Your task to perform on an android device: When is my next appointment? Image 0: 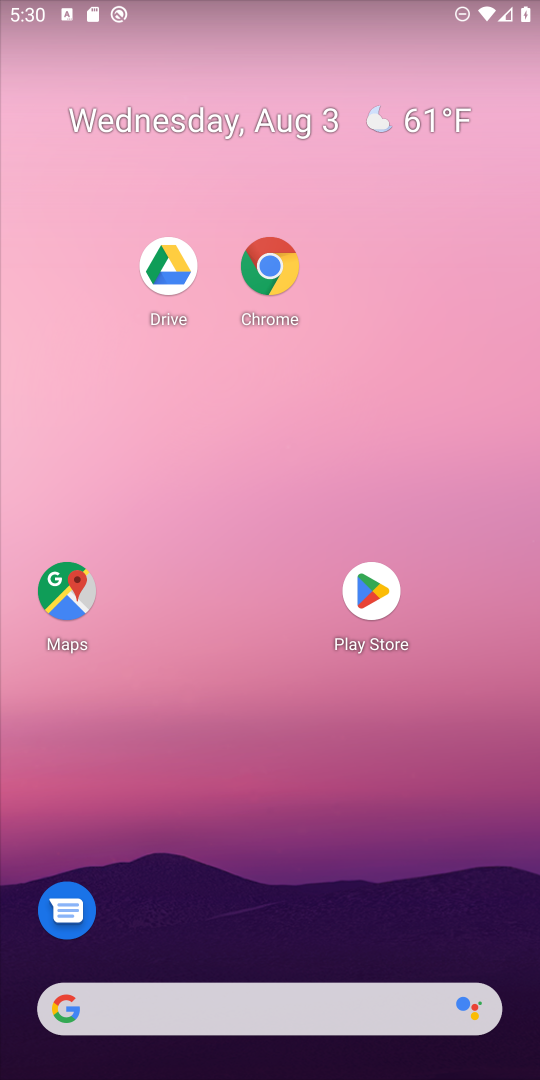
Step 0: drag from (388, 992) to (486, 3)
Your task to perform on an android device: When is my next appointment? Image 1: 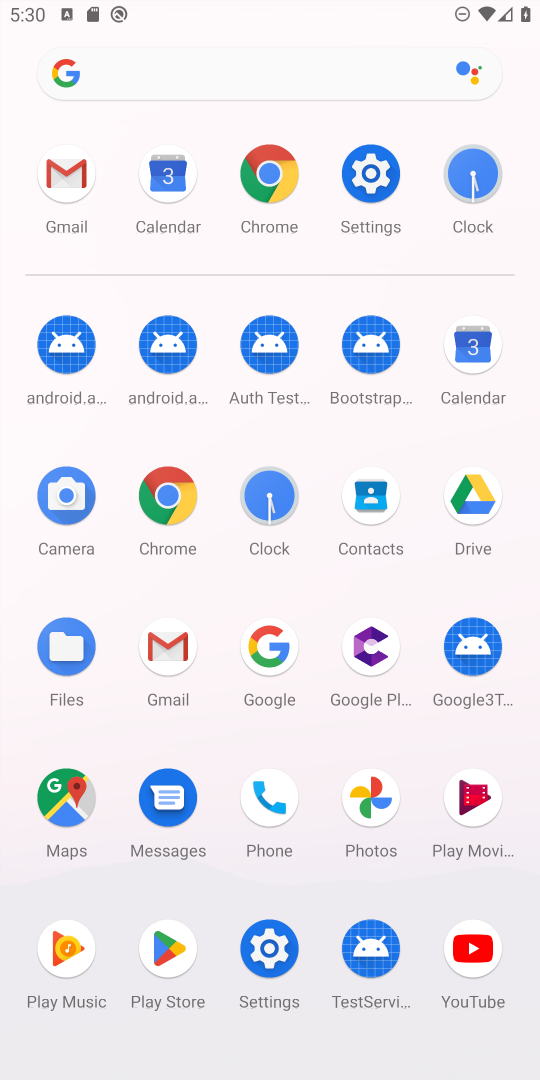
Step 1: click (479, 341)
Your task to perform on an android device: When is my next appointment? Image 2: 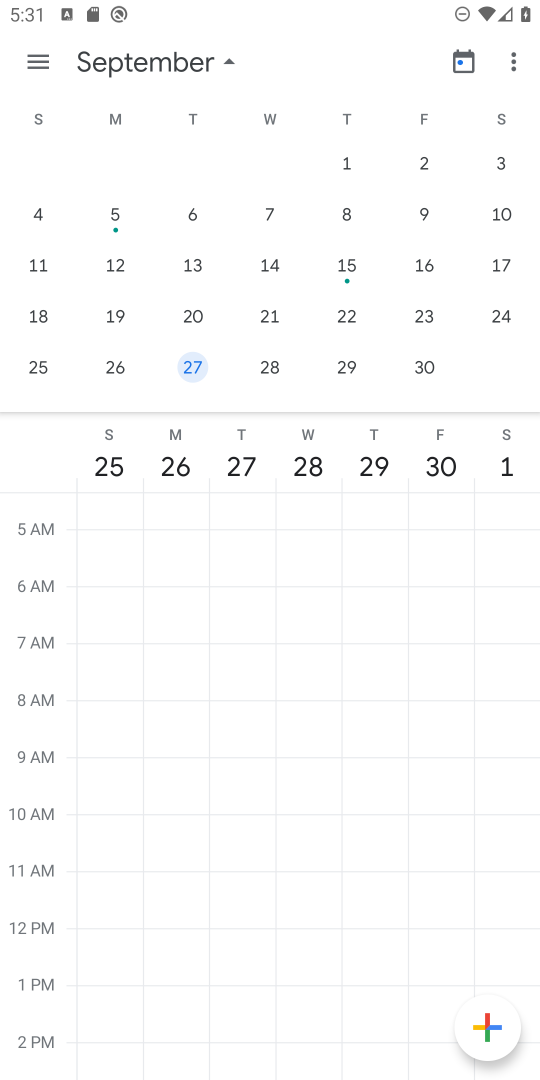
Step 2: drag from (146, 263) to (536, 214)
Your task to perform on an android device: When is my next appointment? Image 3: 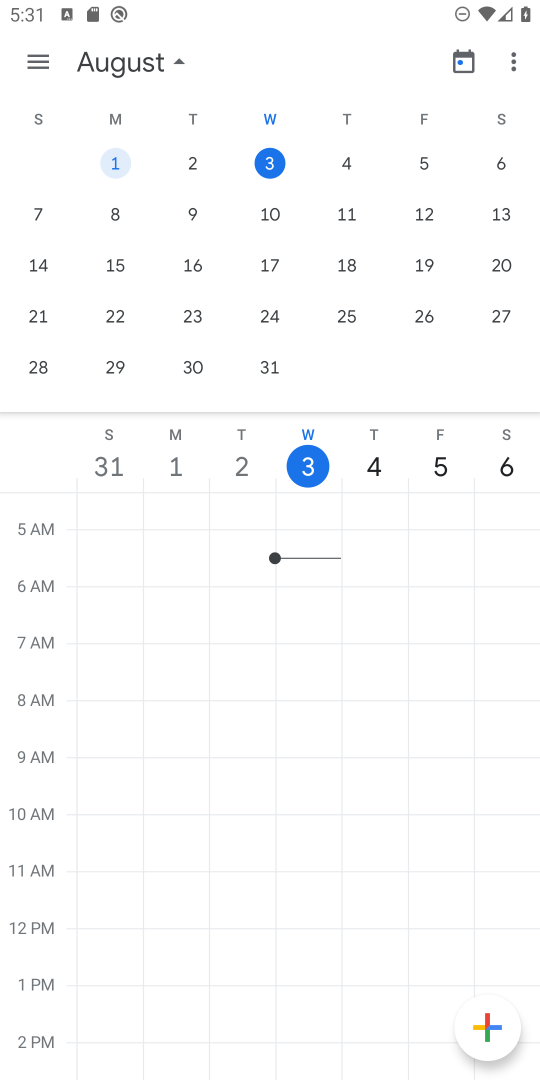
Step 3: click (275, 163)
Your task to perform on an android device: When is my next appointment? Image 4: 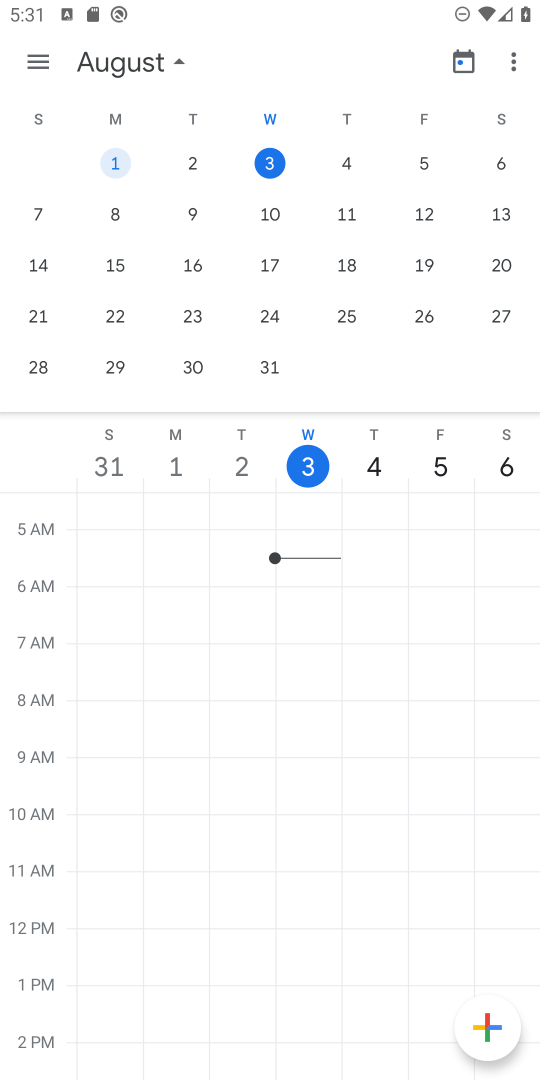
Step 4: click (275, 163)
Your task to perform on an android device: When is my next appointment? Image 5: 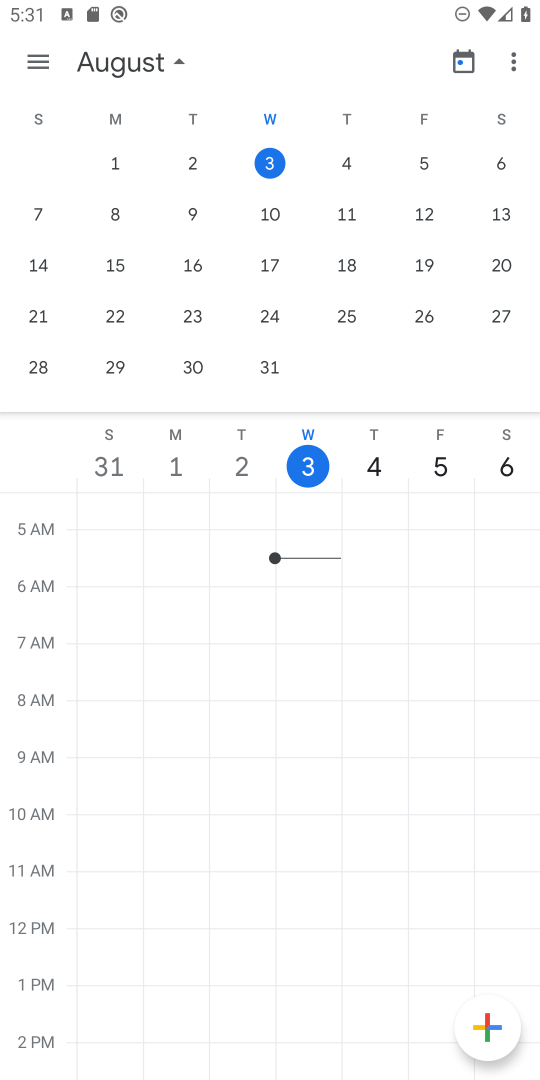
Step 5: click (275, 163)
Your task to perform on an android device: When is my next appointment? Image 6: 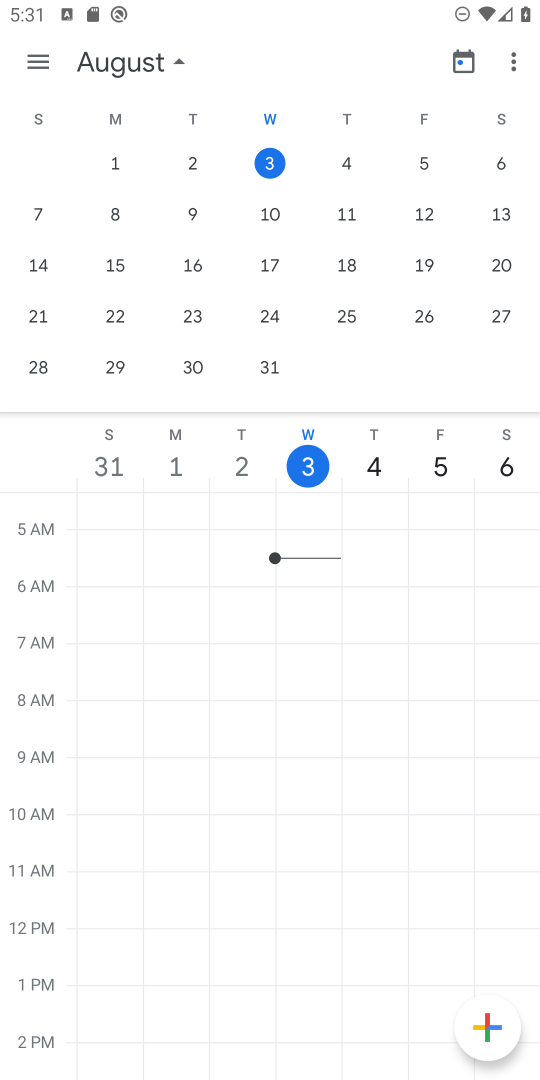
Step 6: task complete